Your task to perform on an android device: Open calendar and show me the fourth week of next month Image 0: 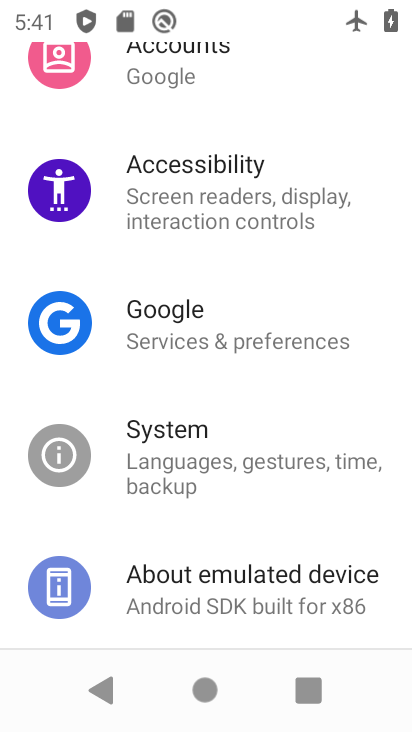
Step 0: press home button
Your task to perform on an android device: Open calendar and show me the fourth week of next month Image 1: 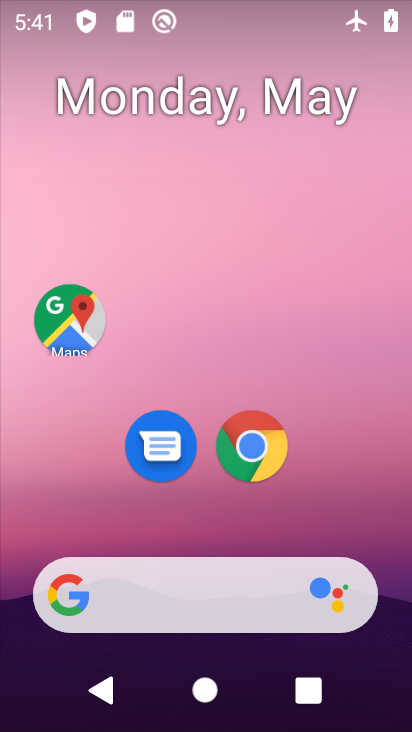
Step 1: drag from (317, 516) to (232, 197)
Your task to perform on an android device: Open calendar and show me the fourth week of next month Image 2: 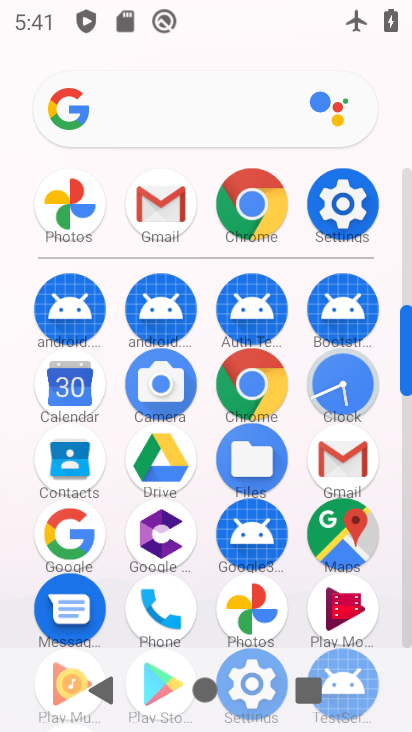
Step 2: click (65, 386)
Your task to perform on an android device: Open calendar and show me the fourth week of next month Image 3: 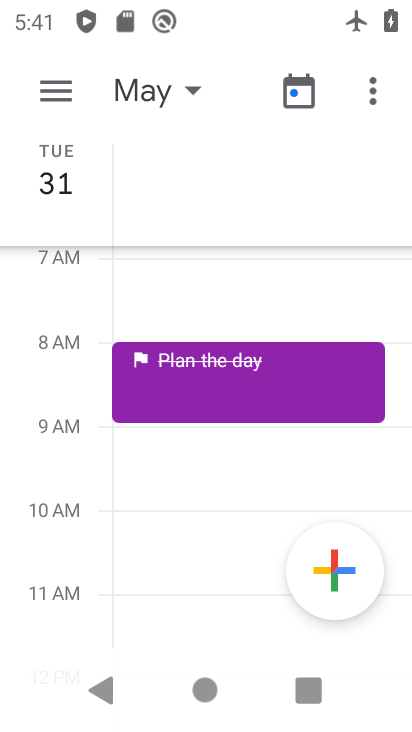
Step 3: click (61, 92)
Your task to perform on an android device: Open calendar and show me the fourth week of next month Image 4: 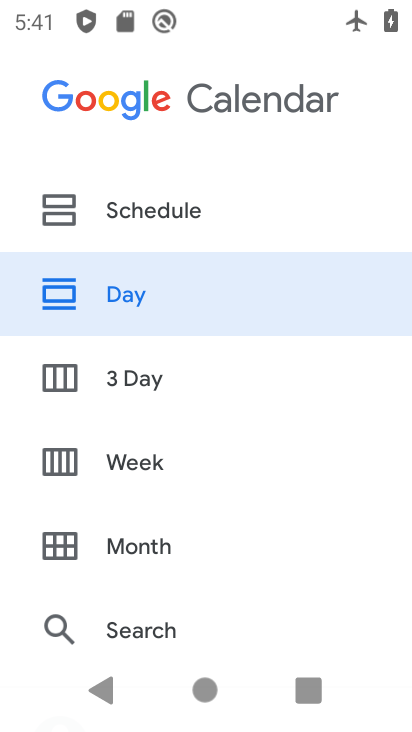
Step 4: click (133, 462)
Your task to perform on an android device: Open calendar and show me the fourth week of next month Image 5: 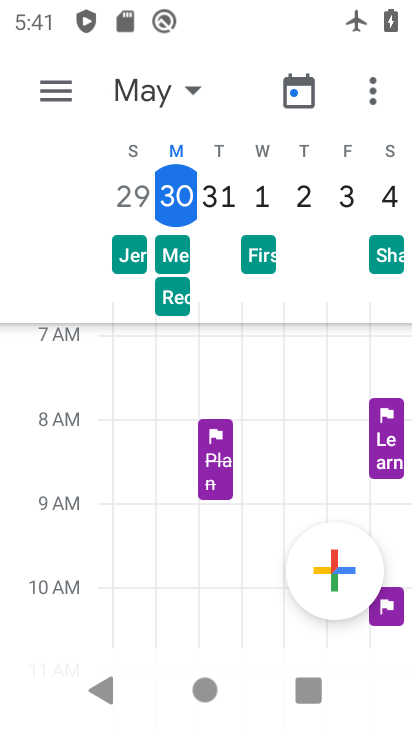
Step 5: click (191, 95)
Your task to perform on an android device: Open calendar and show me the fourth week of next month Image 6: 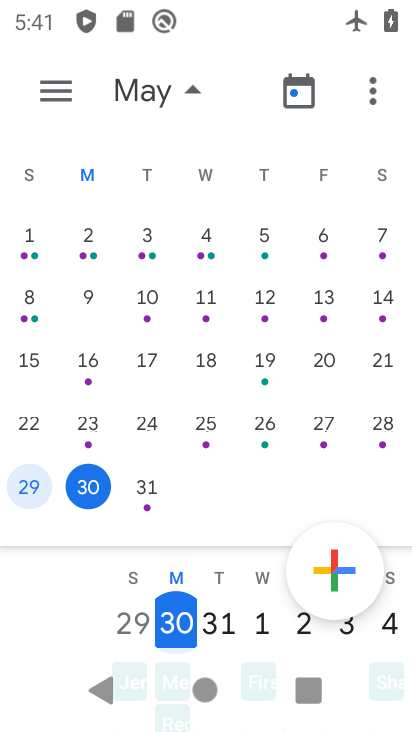
Step 6: drag from (351, 275) to (31, 352)
Your task to perform on an android device: Open calendar and show me the fourth week of next month Image 7: 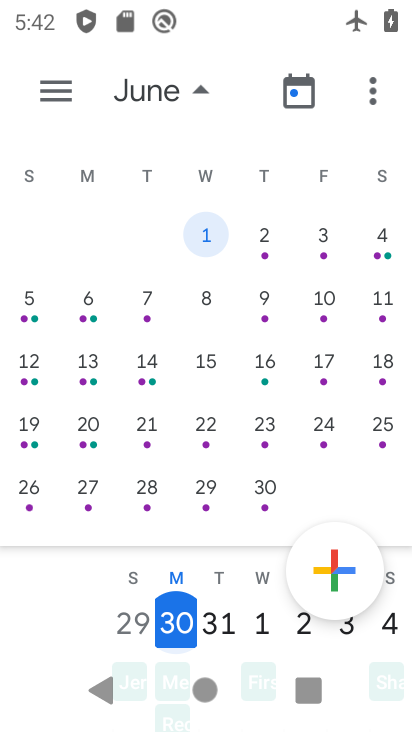
Step 7: click (213, 415)
Your task to perform on an android device: Open calendar and show me the fourth week of next month Image 8: 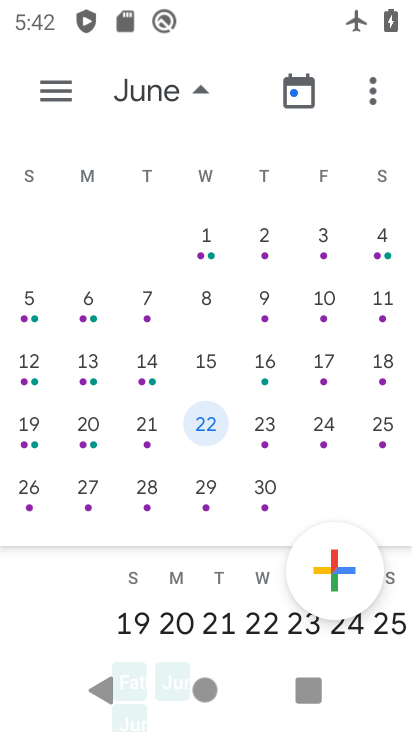
Step 8: task complete